Your task to perform on an android device: see sites visited before in the chrome app Image 0: 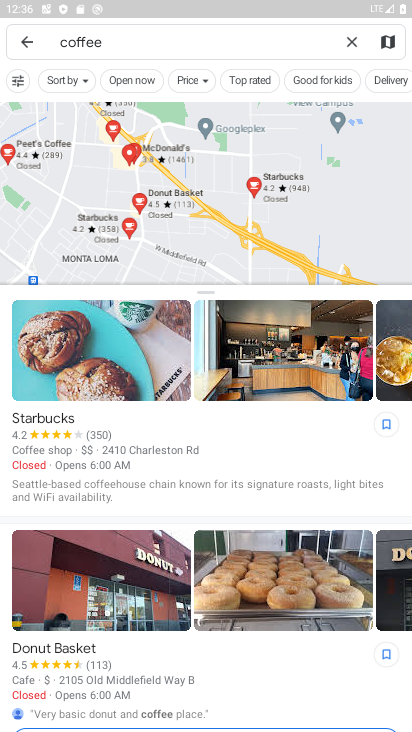
Step 0: press home button
Your task to perform on an android device: see sites visited before in the chrome app Image 1: 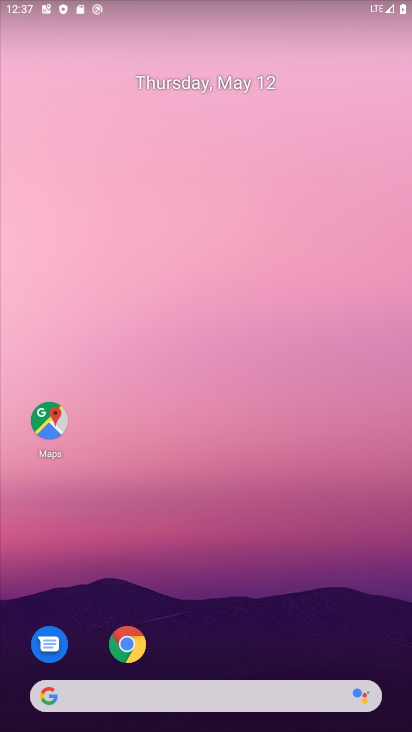
Step 1: click (122, 642)
Your task to perform on an android device: see sites visited before in the chrome app Image 2: 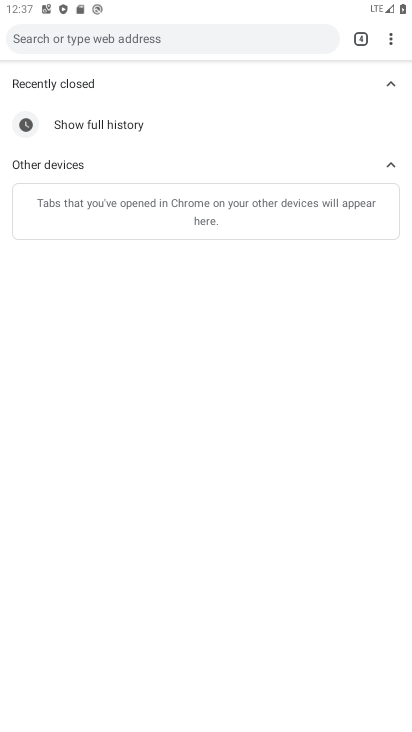
Step 2: click (386, 35)
Your task to perform on an android device: see sites visited before in the chrome app Image 3: 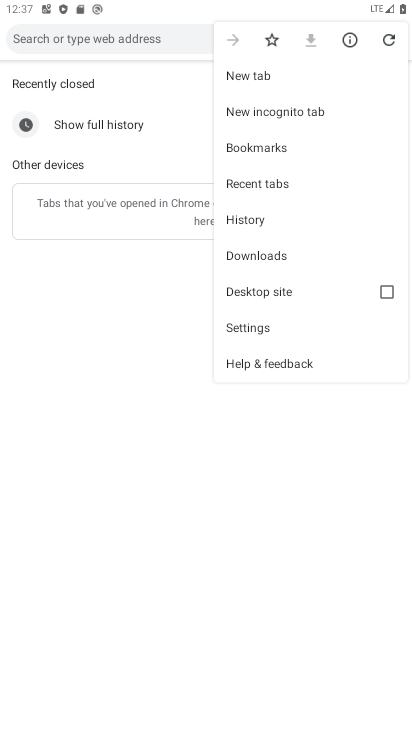
Step 3: click (254, 222)
Your task to perform on an android device: see sites visited before in the chrome app Image 4: 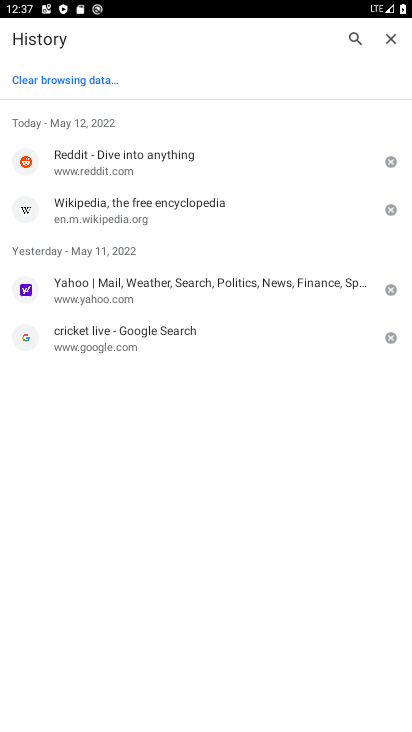
Step 4: task complete